Your task to perform on an android device: turn pop-ups off in chrome Image 0: 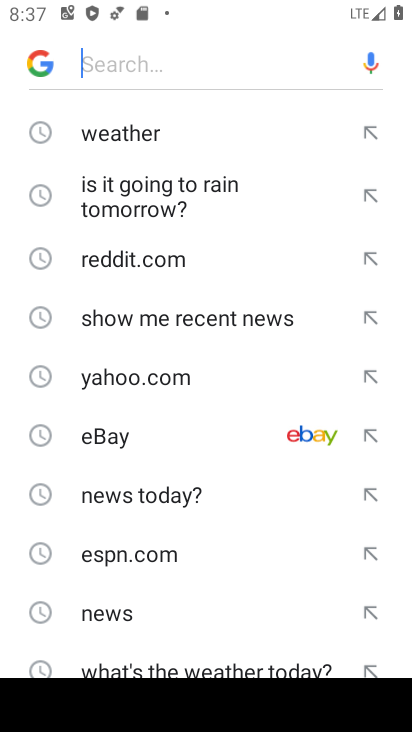
Step 0: press home button
Your task to perform on an android device: turn pop-ups off in chrome Image 1: 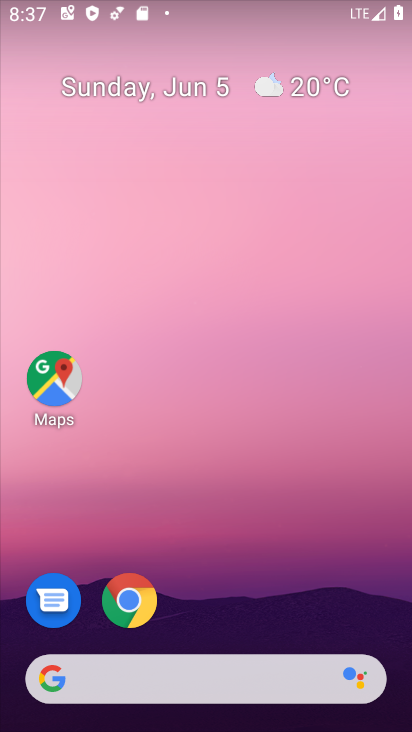
Step 1: click (136, 600)
Your task to perform on an android device: turn pop-ups off in chrome Image 2: 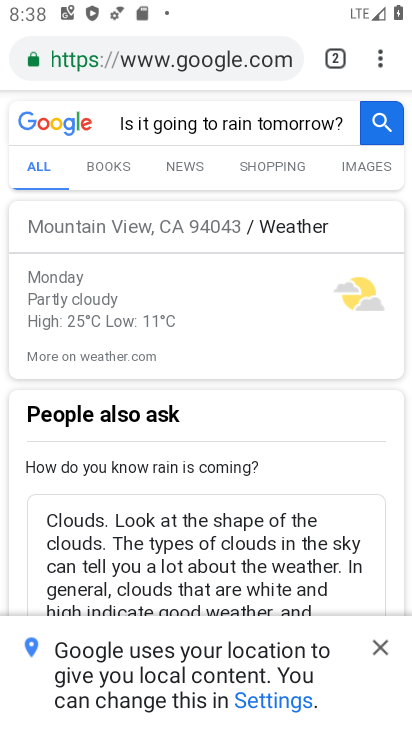
Step 2: click (376, 61)
Your task to perform on an android device: turn pop-ups off in chrome Image 3: 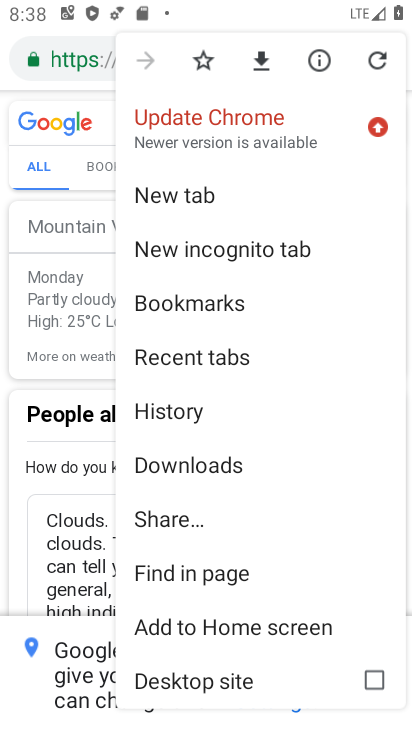
Step 3: drag from (289, 451) to (264, 120)
Your task to perform on an android device: turn pop-ups off in chrome Image 4: 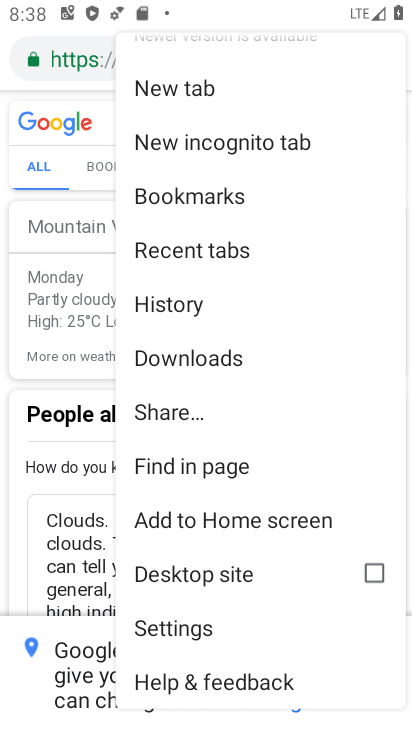
Step 4: click (197, 622)
Your task to perform on an android device: turn pop-ups off in chrome Image 5: 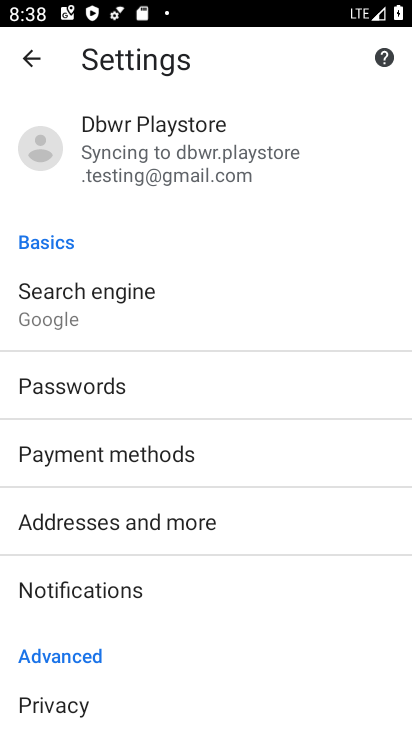
Step 5: drag from (253, 618) to (284, 237)
Your task to perform on an android device: turn pop-ups off in chrome Image 6: 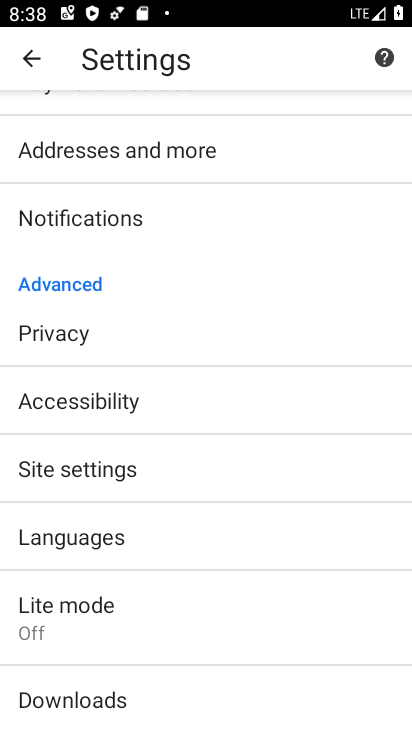
Step 6: click (240, 470)
Your task to perform on an android device: turn pop-ups off in chrome Image 7: 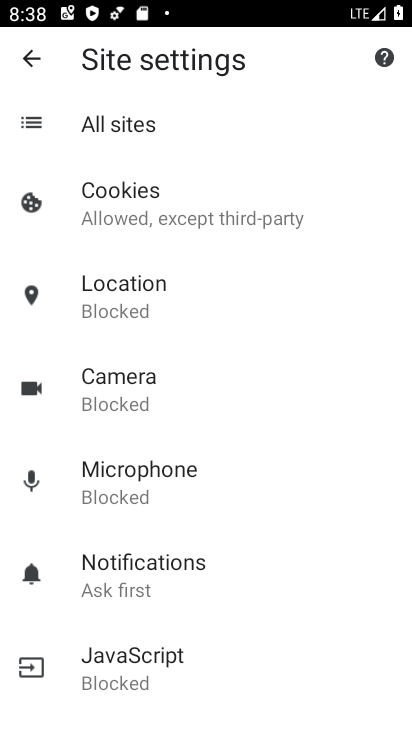
Step 7: drag from (260, 568) to (295, 176)
Your task to perform on an android device: turn pop-ups off in chrome Image 8: 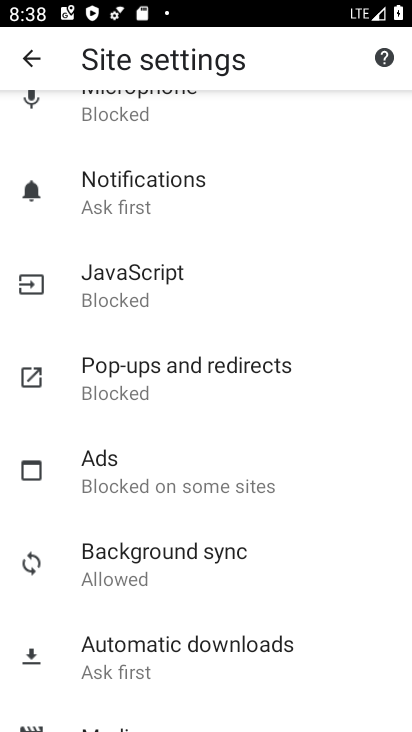
Step 8: click (230, 376)
Your task to perform on an android device: turn pop-ups off in chrome Image 9: 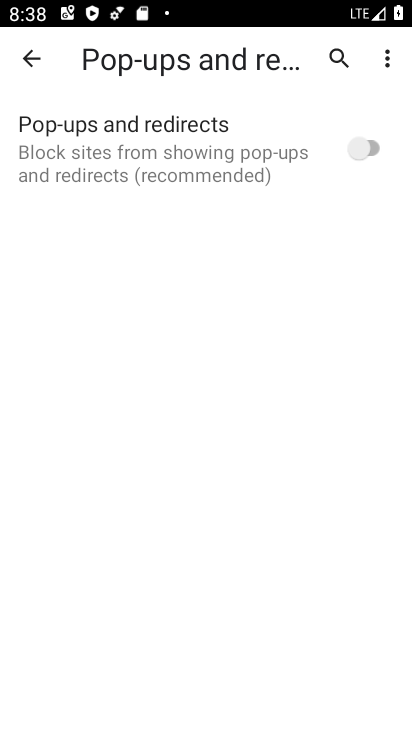
Step 9: task complete